Your task to perform on an android device: Do I have any events this weekend? Image 0: 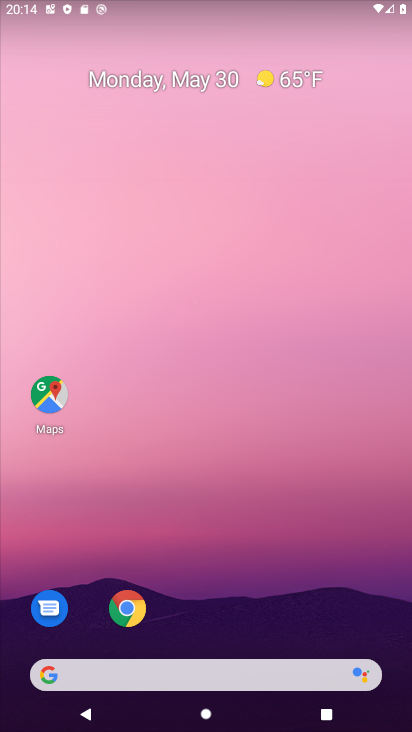
Step 0: drag from (188, 639) to (195, 242)
Your task to perform on an android device: Do I have any events this weekend? Image 1: 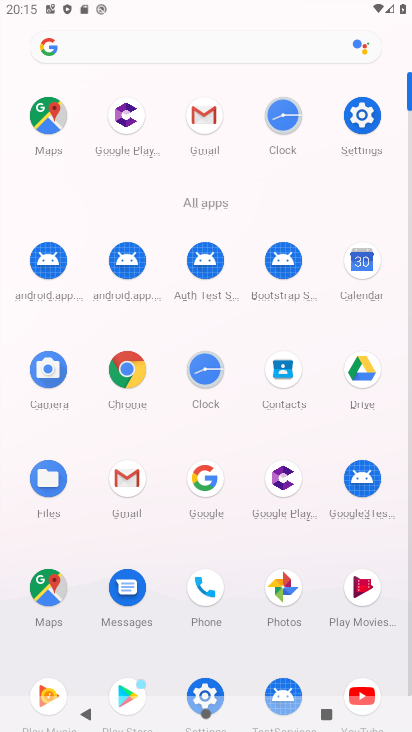
Step 1: click (352, 263)
Your task to perform on an android device: Do I have any events this weekend? Image 2: 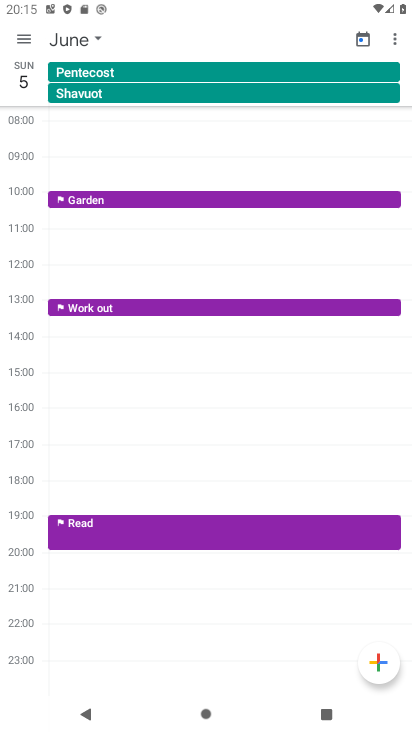
Step 2: click (100, 37)
Your task to perform on an android device: Do I have any events this weekend? Image 3: 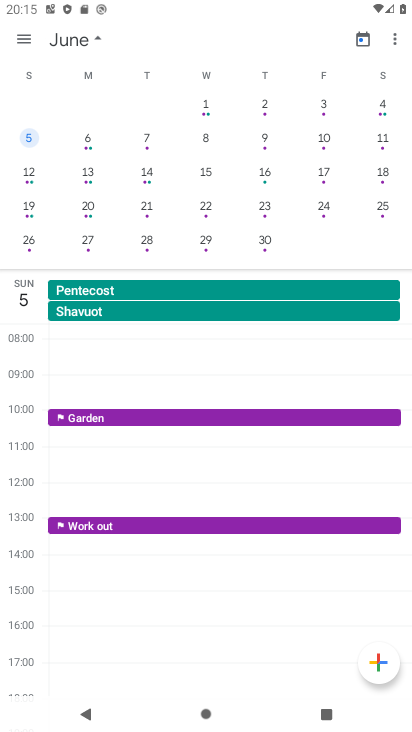
Step 3: drag from (47, 172) to (356, 178)
Your task to perform on an android device: Do I have any events this weekend? Image 4: 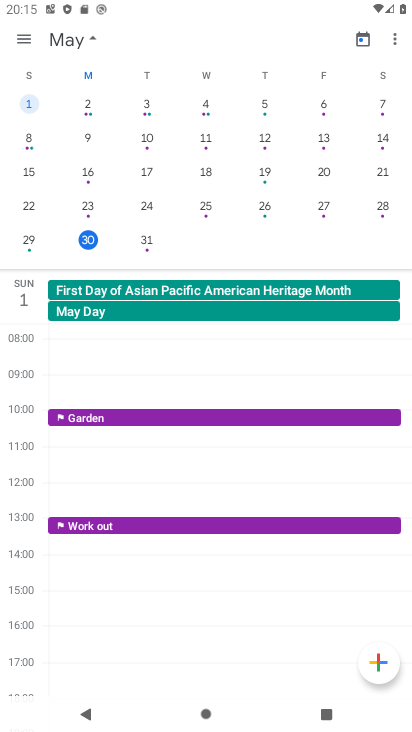
Step 4: drag from (357, 181) to (0, 144)
Your task to perform on an android device: Do I have any events this weekend? Image 5: 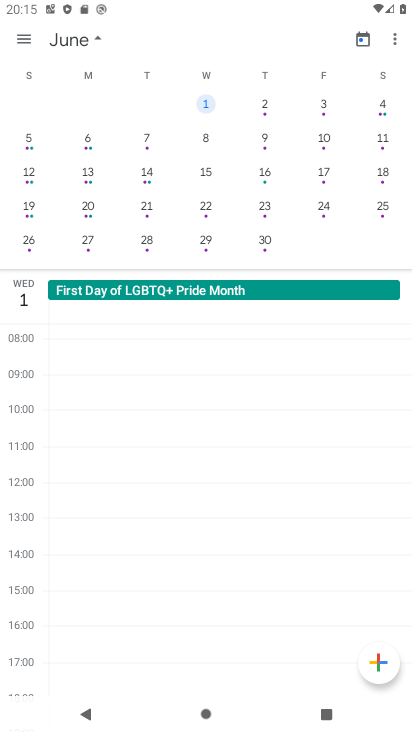
Step 5: click (215, 97)
Your task to perform on an android device: Do I have any events this weekend? Image 6: 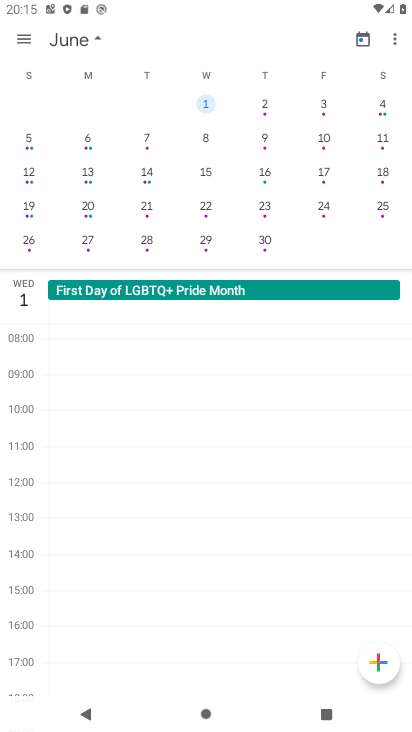
Step 6: click (372, 95)
Your task to perform on an android device: Do I have any events this weekend? Image 7: 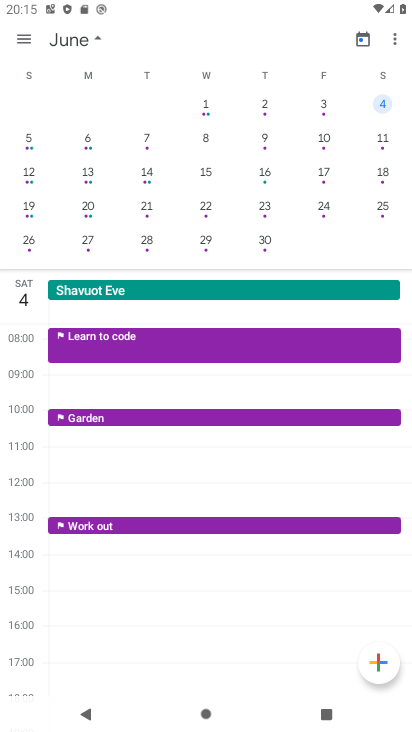
Step 7: task complete